Your task to perform on an android device: What's the weather? Image 0: 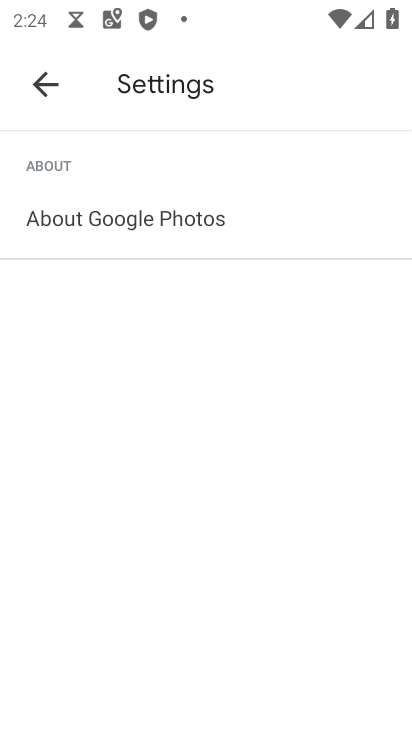
Step 0: press home button
Your task to perform on an android device: What's the weather? Image 1: 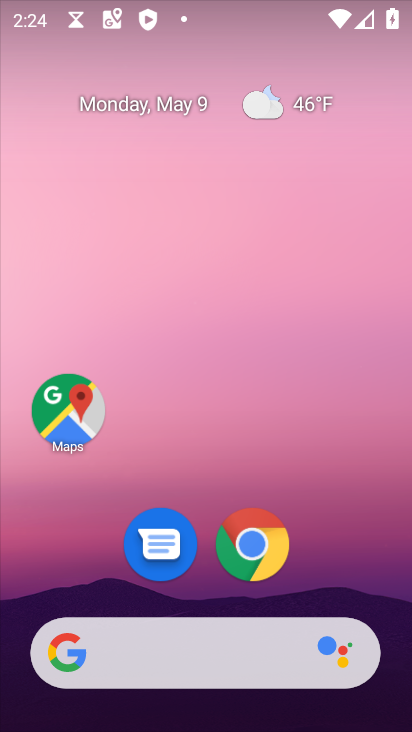
Step 1: click (234, 543)
Your task to perform on an android device: What's the weather? Image 2: 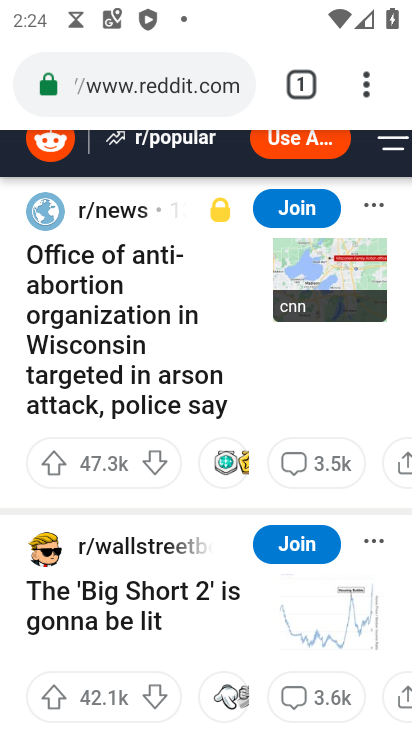
Step 2: click (295, 87)
Your task to perform on an android device: What's the weather? Image 3: 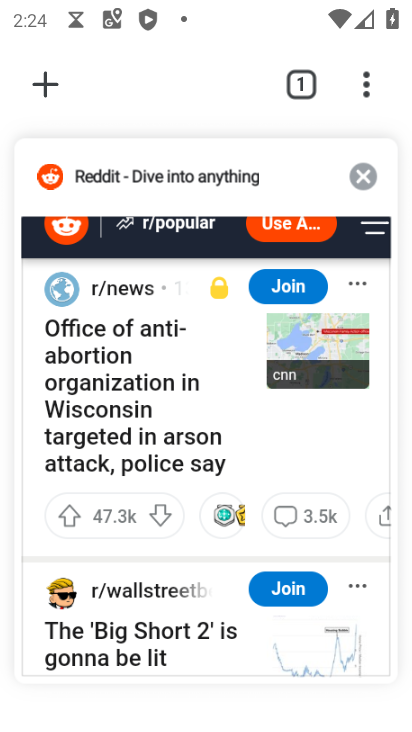
Step 3: click (51, 79)
Your task to perform on an android device: What's the weather? Image 4: 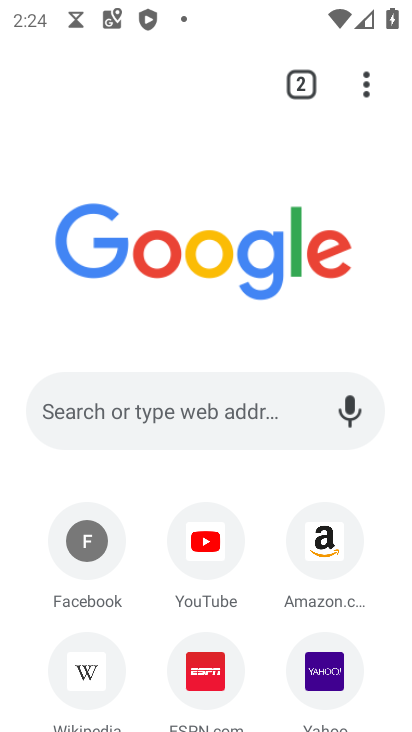
Step 4: click (145, 424)
Your task to perform on an android device: What's the weather? Image 5: 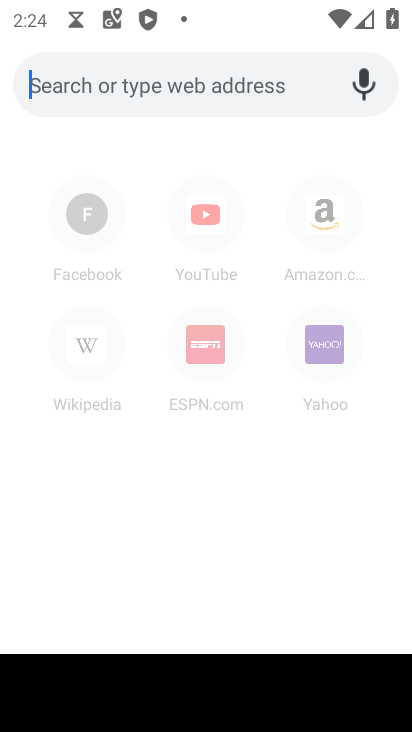
Step 5: type "whats the weather"
Your task to perform on an android device: What's the weather? Image 6: 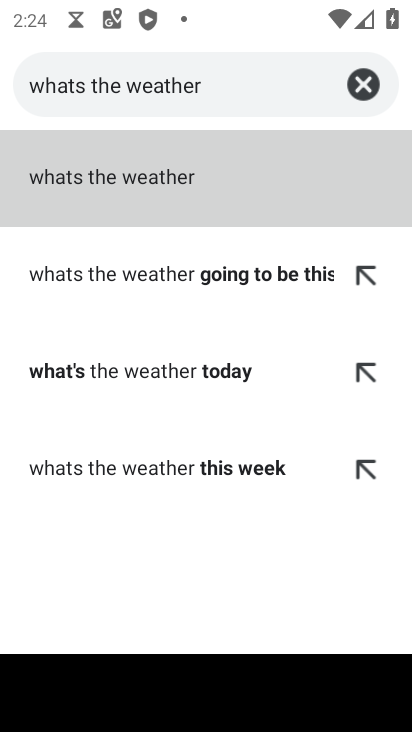
Step 6: click (122, 161)
Your task to perform on an android device: What's the weather? Image 7: 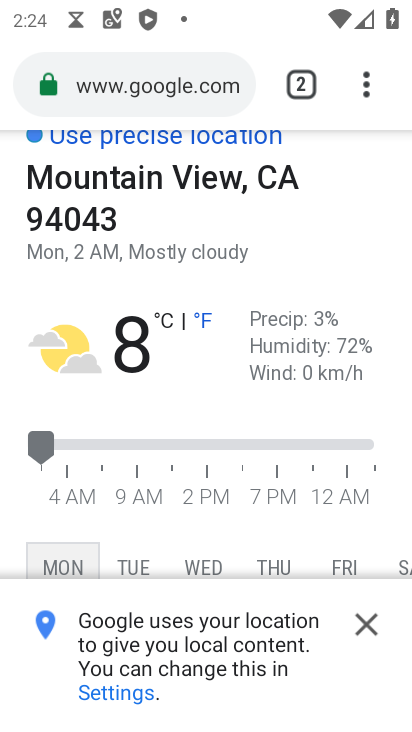
Step 7: click (365, 627)
Your task to perform on an android device: What's the weather? Image 8: 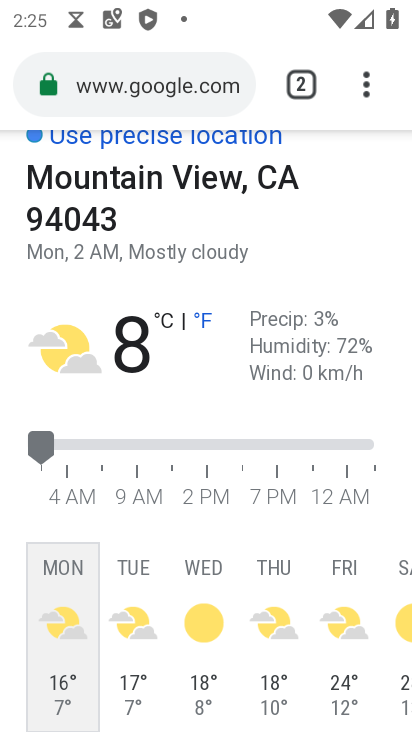
Step 8: task complete